Your task to perform on an android device: Open the map Image 0: 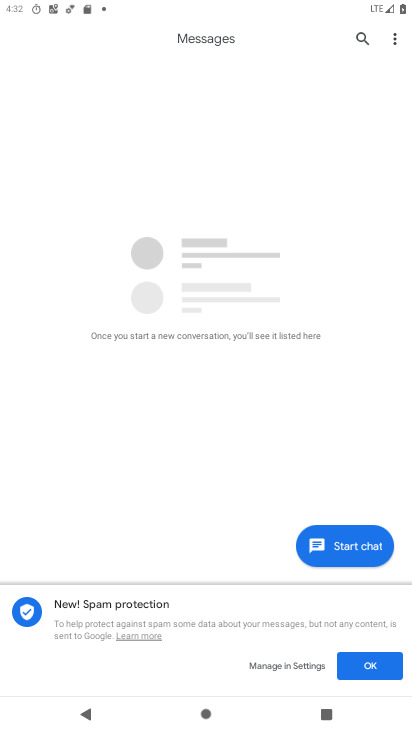
Step 0: press home button
Your task to perform on an android device: Open the map Image 1: 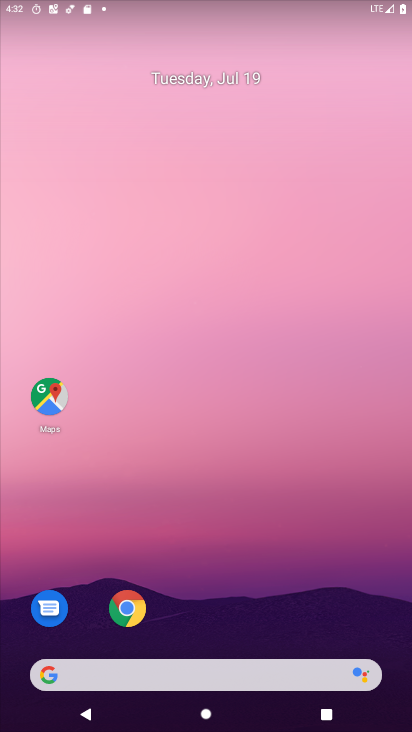
Step 1: click (48, 397)
Your task to perform on an android device: Open the map Image 2: 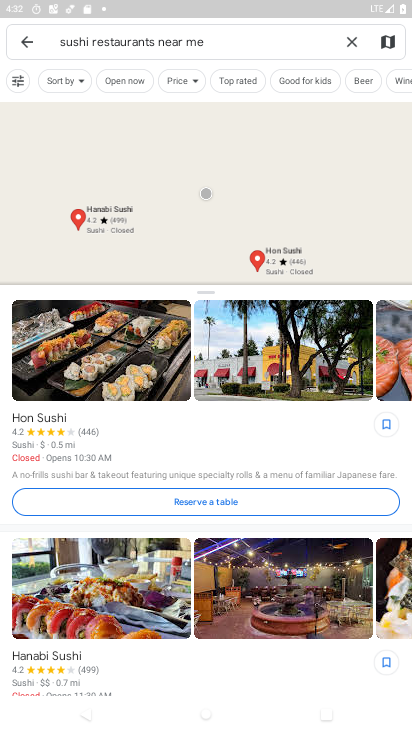
Step 2: click (351, 41)
Your task to perform on an android device: Open the map Image 3: 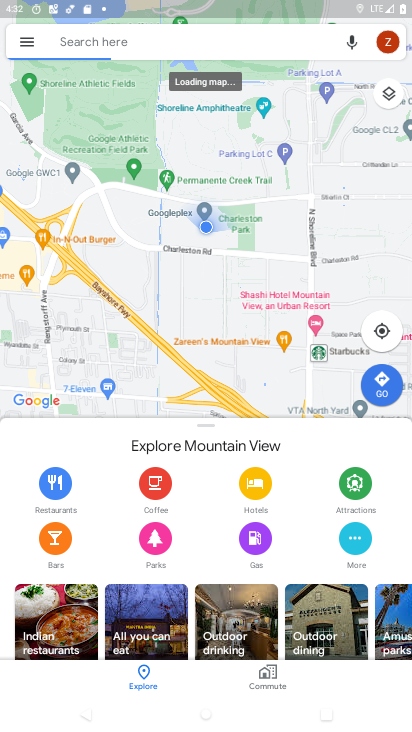
Step 3: task complete